Your task to perform on an android device: Search for seafood restaurants on Google Maps Image 0: 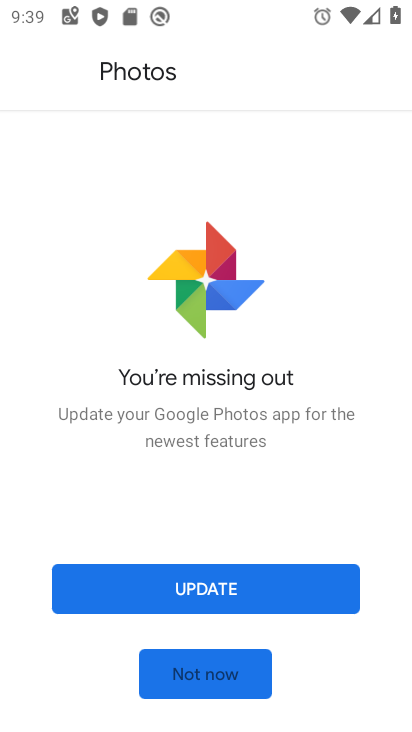
Step 0: press home button
Your task to perform on an android device: Search for seafood restaurants on Google Maps Image 1: 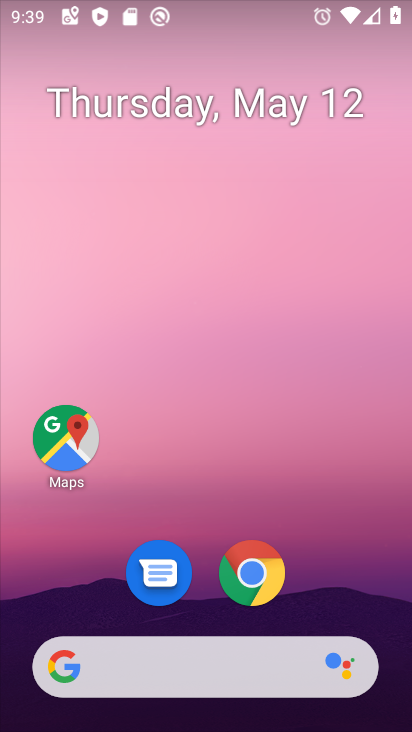
Step 1: click (65, 440)
Your task to perform on an android device: Search for seafood restaurants on Google Maps Image 2: 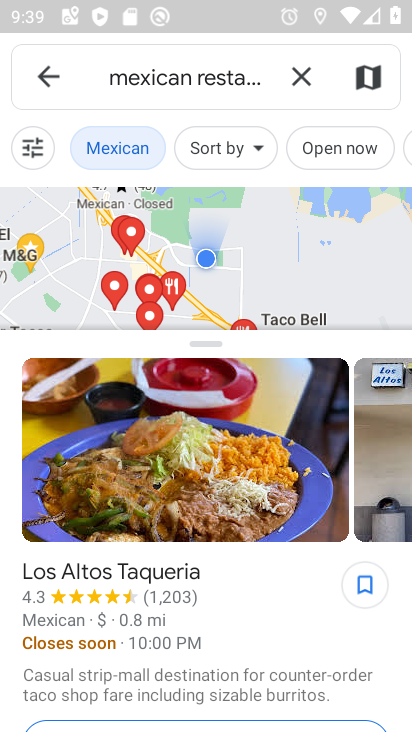
Step 2: click (301, 79)
Your task to perform on an android device: Search for seafood restaurants on Google Maps Image 3: 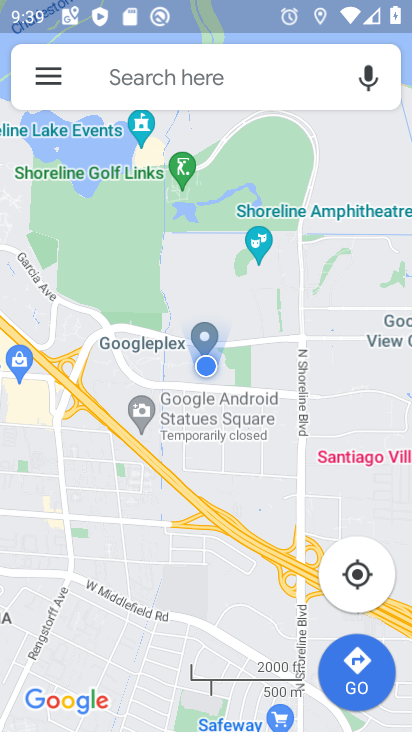
Step 3: click (243, 83)
Your task to perform on an android device: Search for seafood restaurants on Google Maps Image 4: 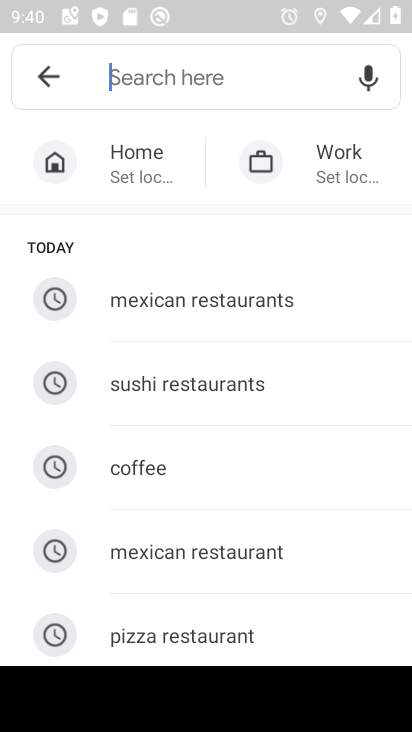
Step 4: type "seafood restaurants"
Your task to perform on an android device: Search for seafood restaurants on Google Maps Image 5: 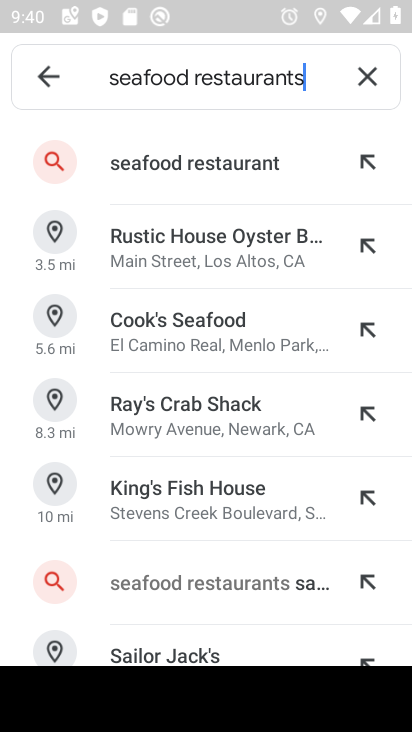
Step 5: click (155, 160)
Your task to perform on an android device: Search for seafood restaurants on Google Maps Image 6: 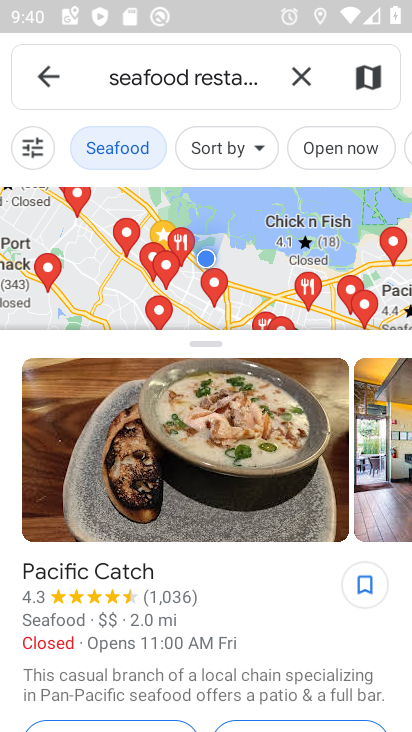
Step 6: task complete